Your task to perform on an android device: turn off picture-in-picture Image 0: 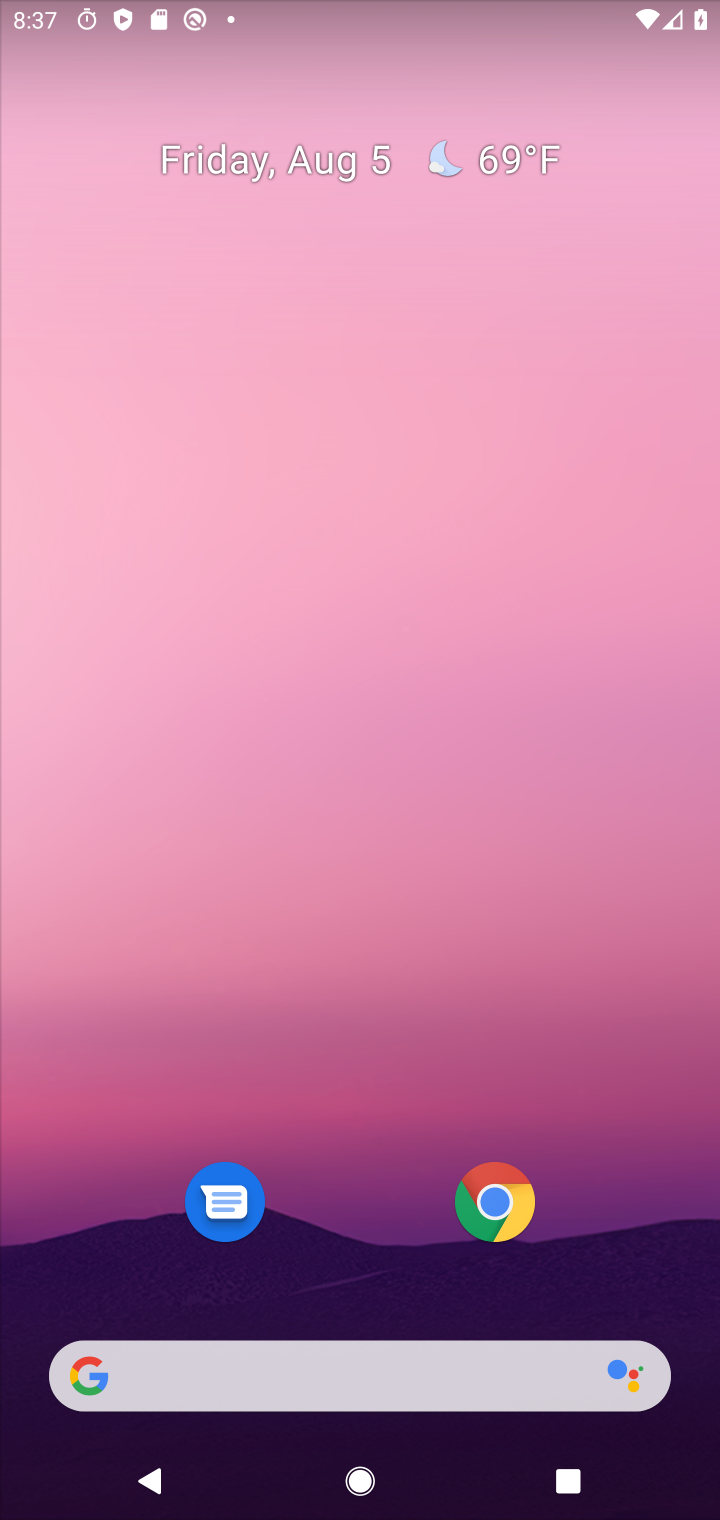
Step 0: click (485, 1231)
Your task to perform on an android device: turn off picture-in-picture Image 1: 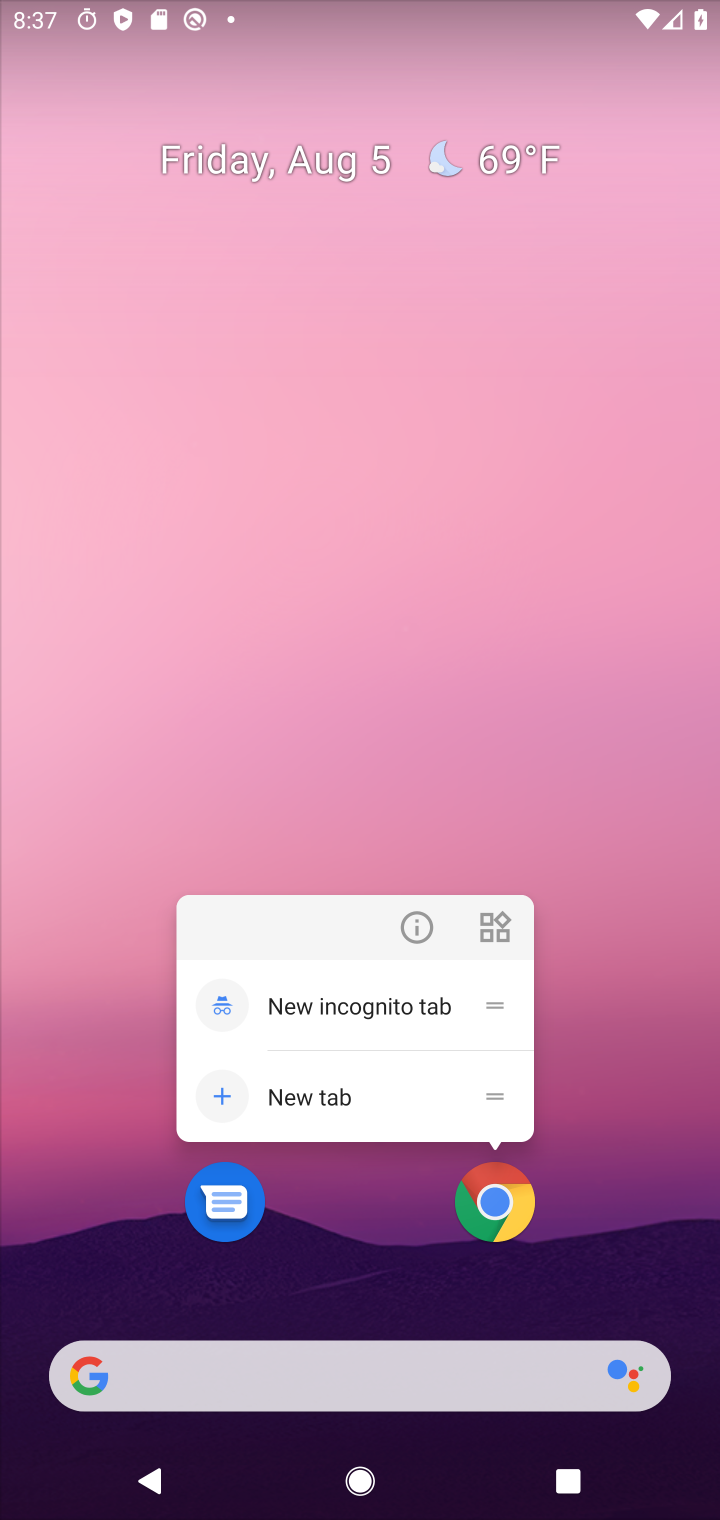
Step 1: click (412, 926)
Your task to perform on an android device: turn off picture-in-picture Image 2: 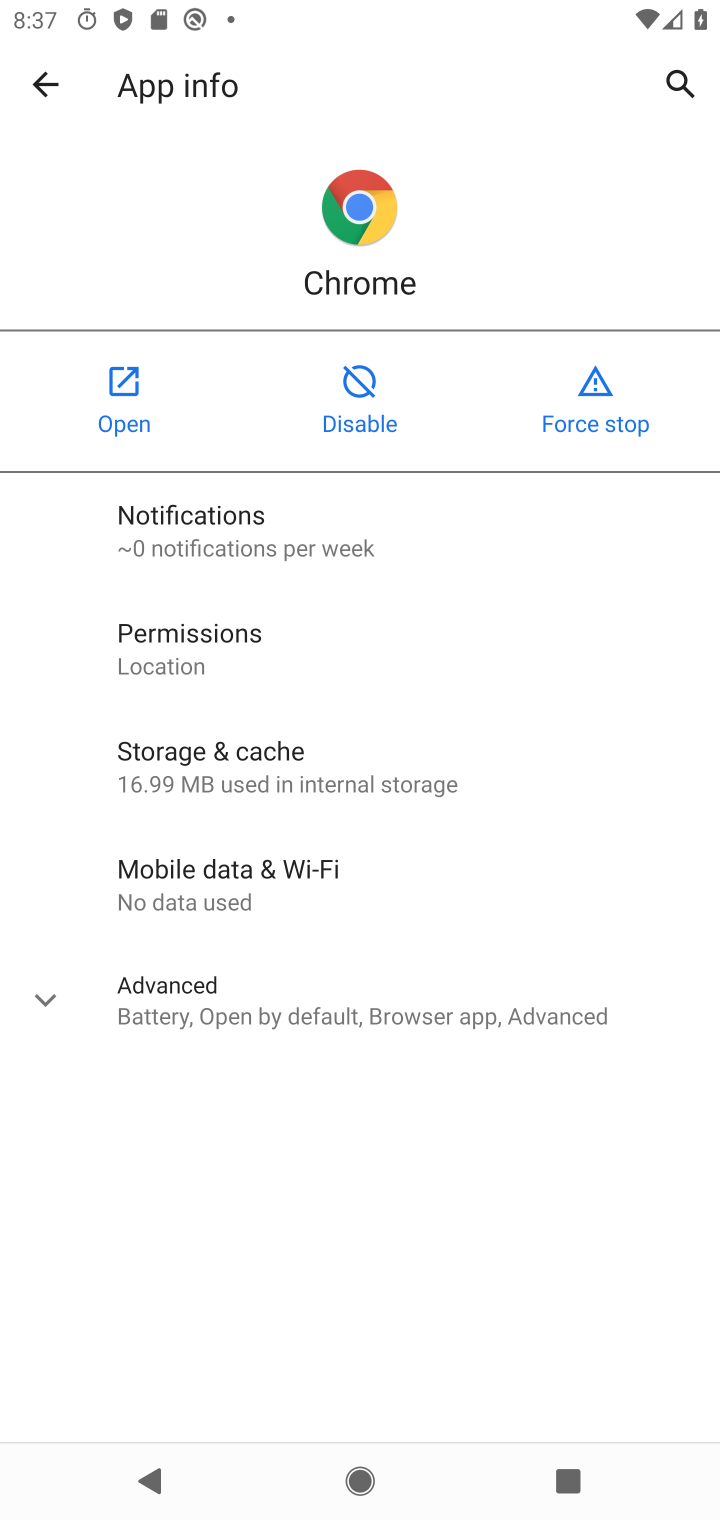
Step 2: click (308, 1011)
Your task to perform on an android device: turn off picture-in-picture Image 3: 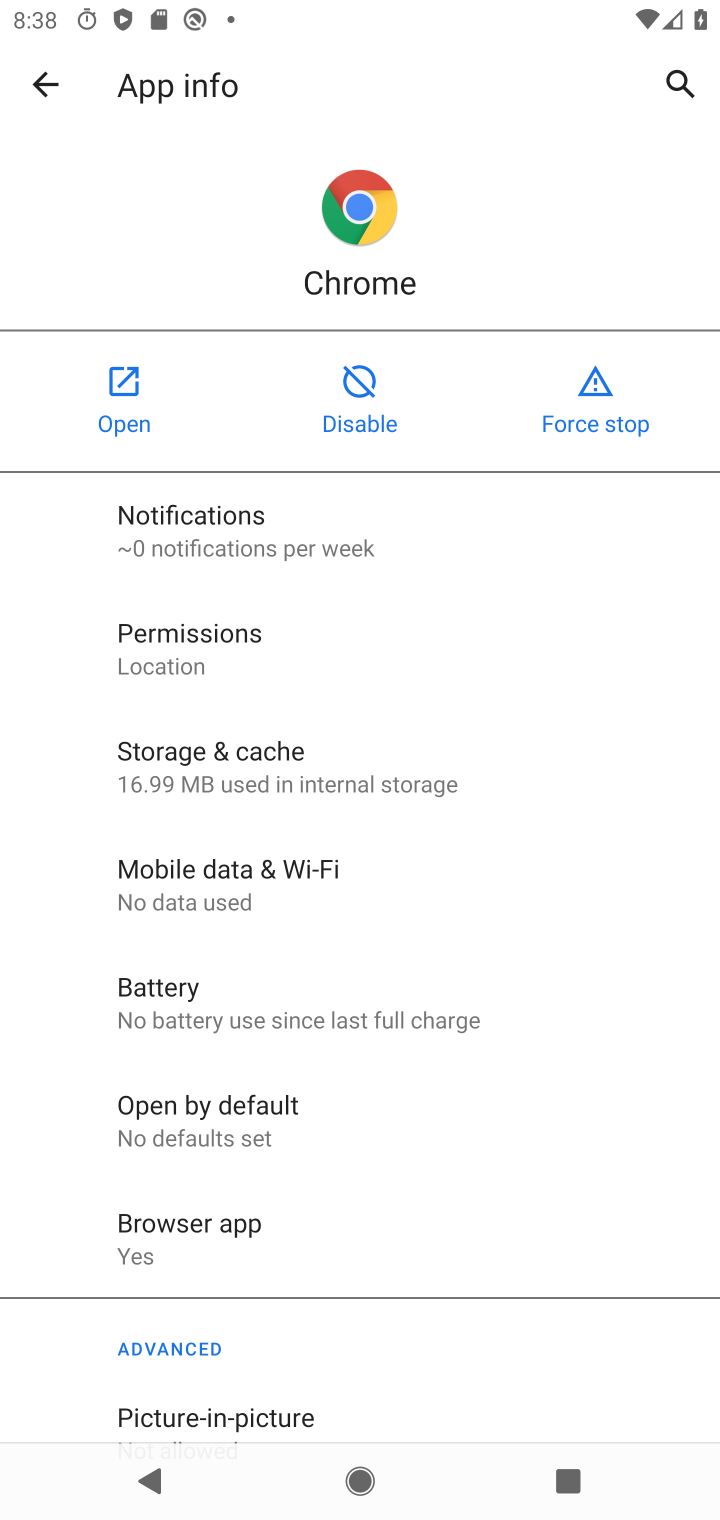
Step 3: click (242, 1384)
Your task to perform on an android device: turn off picture-in-picture Image 4: 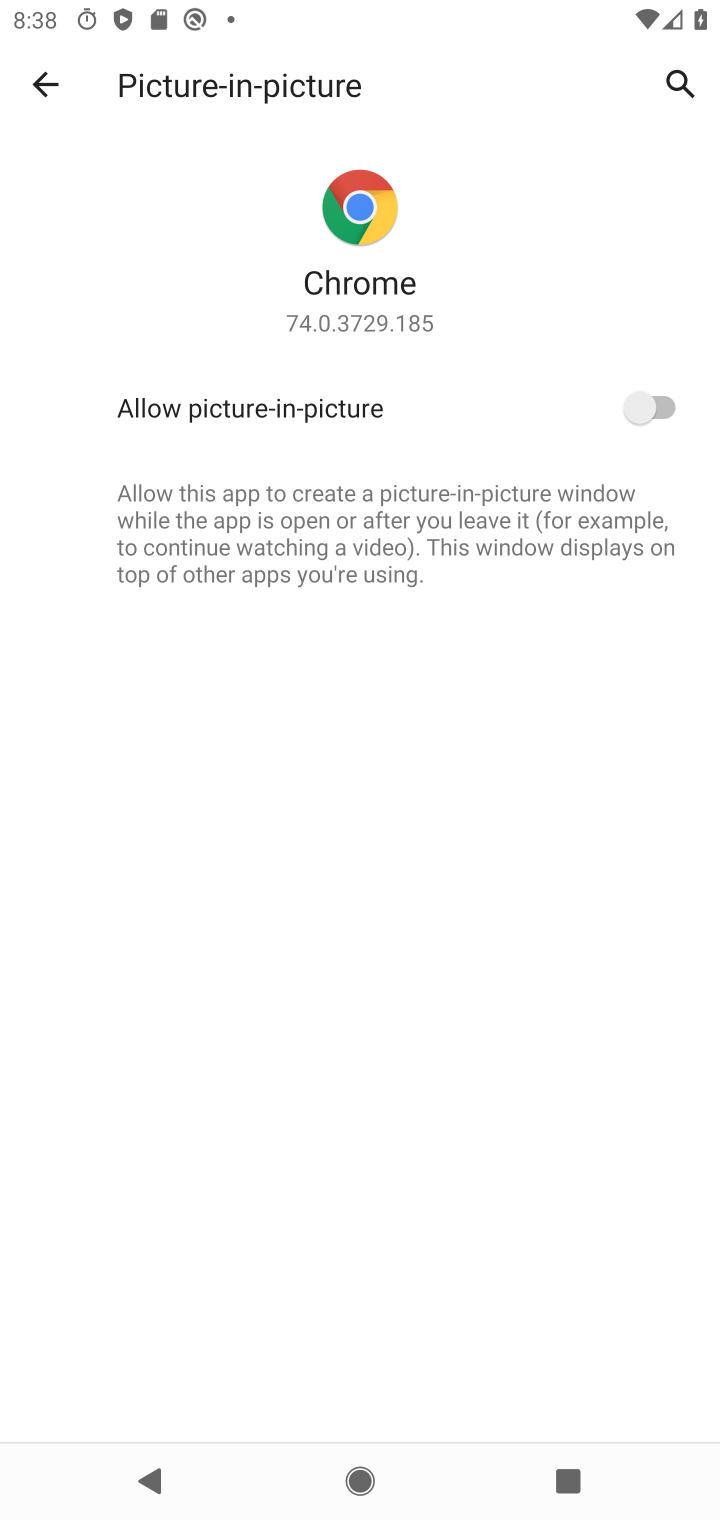
Step 4: task complete